Your task to perform on an android device: Open location settings Image 0: 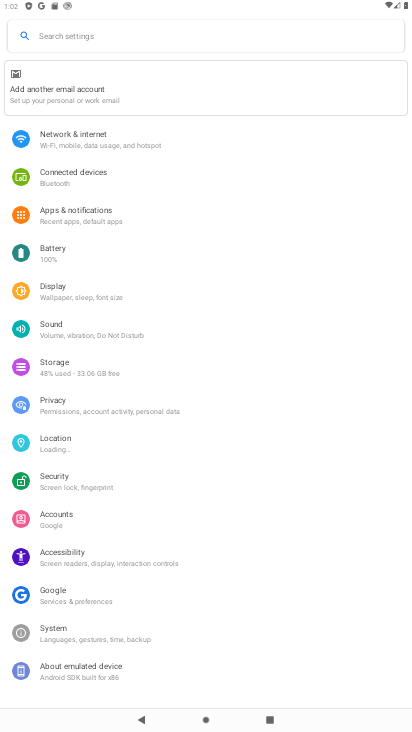
Step 0: click (74, 441)
Your task to perform on an android device: Open location settings Image 1: 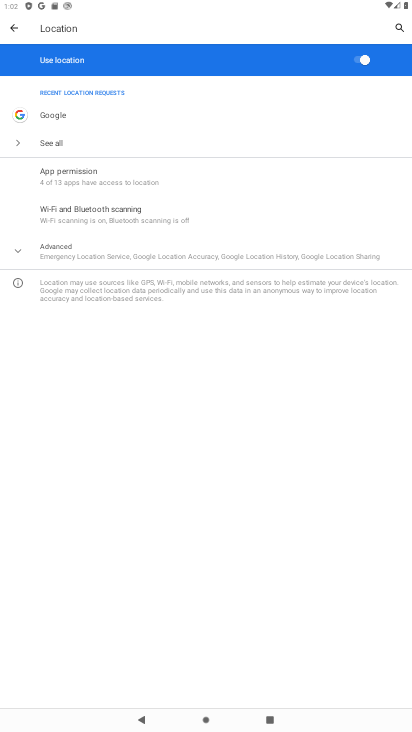
Step 1: task complete